Your task to perform on an android device: refresh tabs in the chrome app Image 0: 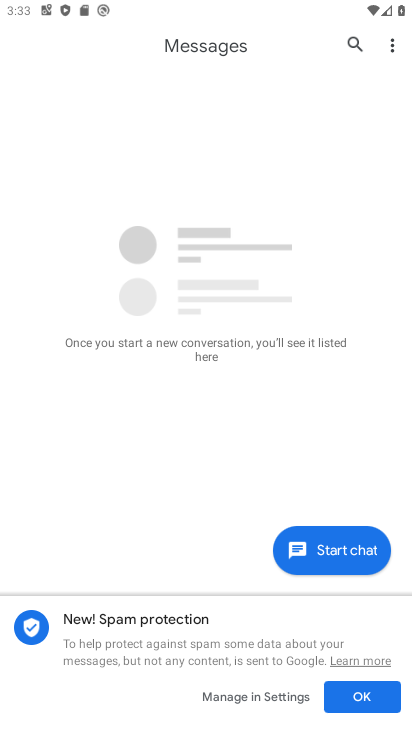
Step 0: press home button
Your task to perform on an android device: refresh tabs in the chrome app Image 1: 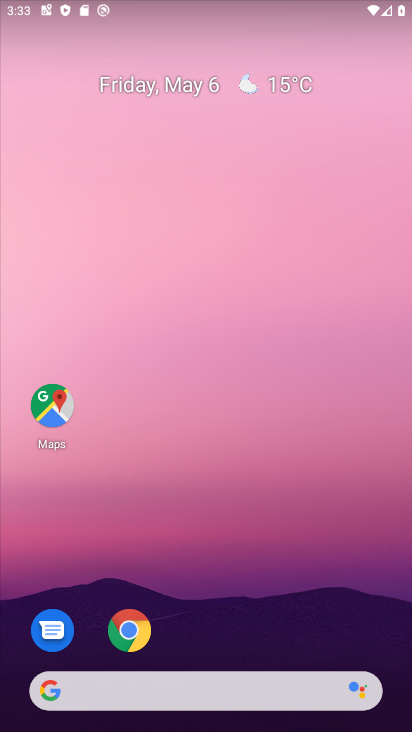
Step 1: click (136, 627)
Your task to perform on an android device: refresh tabs in the chrome app Image 2: 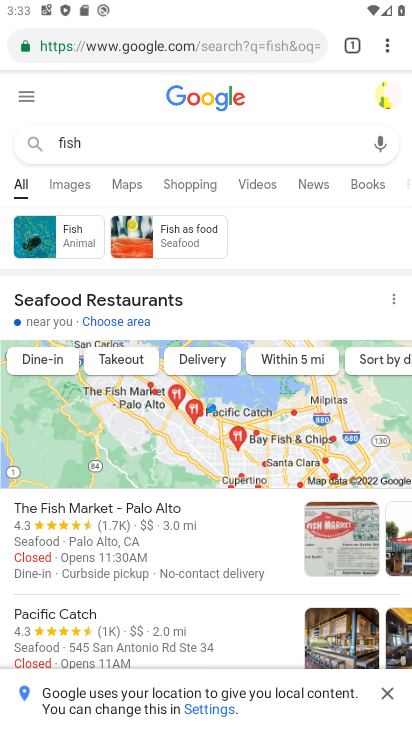
Step 2: click (381, 38)
Your task to perform on an android device: refresh tabs in the chrome app Image 3: 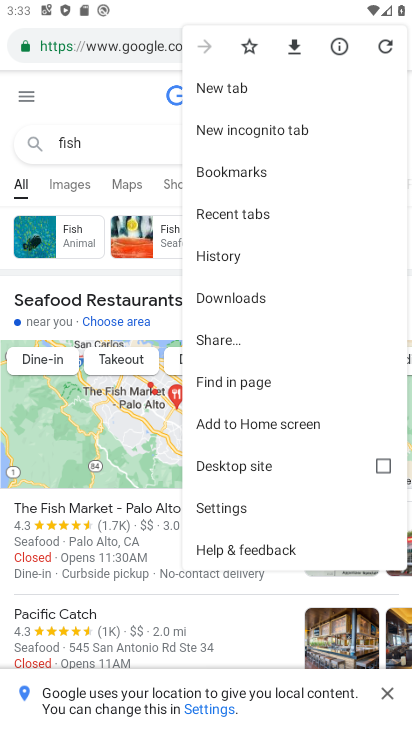
Step 3: click (386, 64)
Your task to perform on an android device: refresh tabs in the chrome app Image 4: 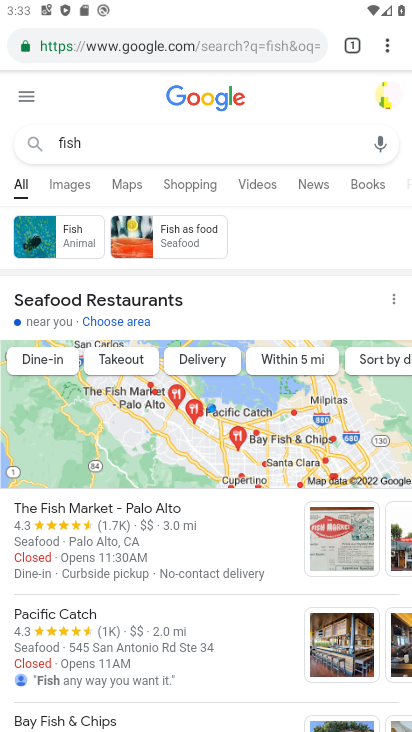
Step 4: task complete